Your task to perform on an android device: turn on javascript in the chrome app Image 0: 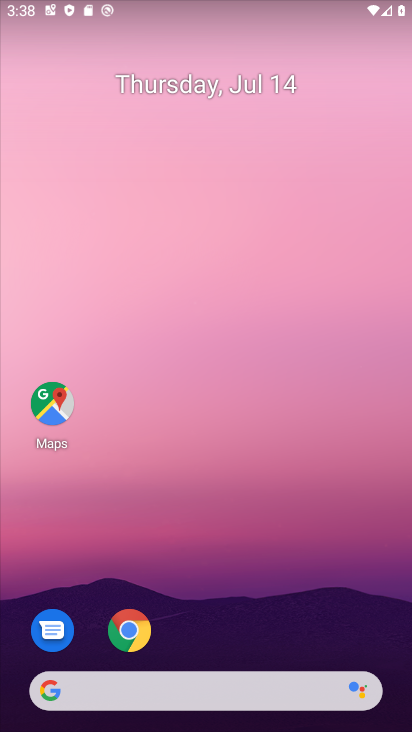
Step 0: click (132, 640)
Your task to perform on an android device: turn on javascript in the chrome app Image 1: 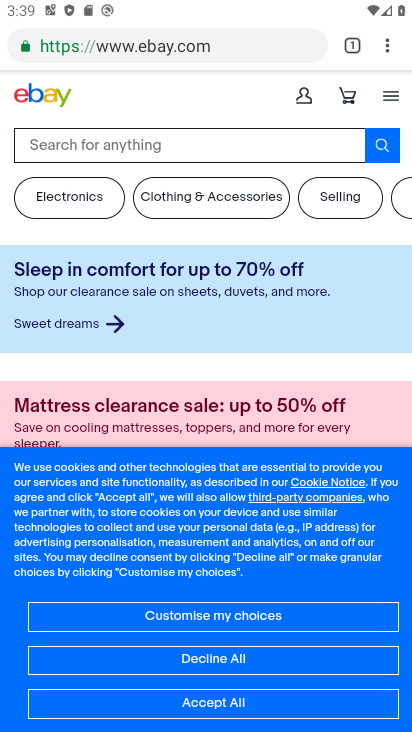
Step 1: click (389, 41)
Your task to perform on an android device: turn on javascript in the chrome app Image 2: 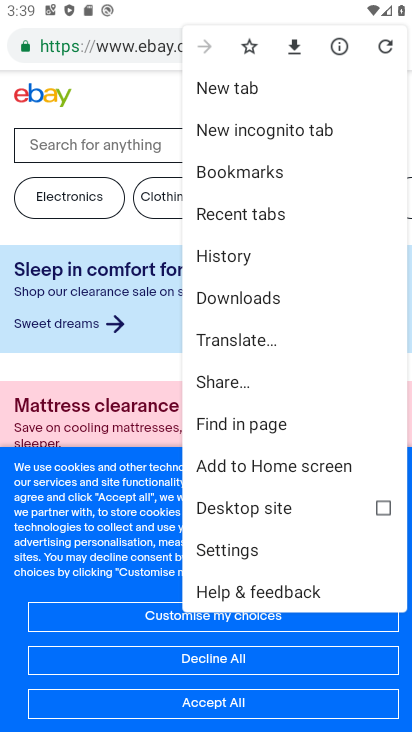
Step 2: click (271, 550)
Your task to perform on an android device: turn on javascript in the chrome app Image 3: 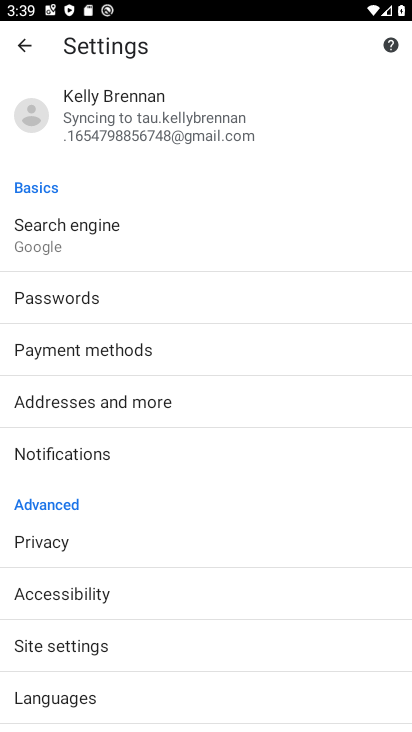
Step 3: click (126, 649)
Your task to perform on an android device: turn on javascript in the chrome app Image 4: 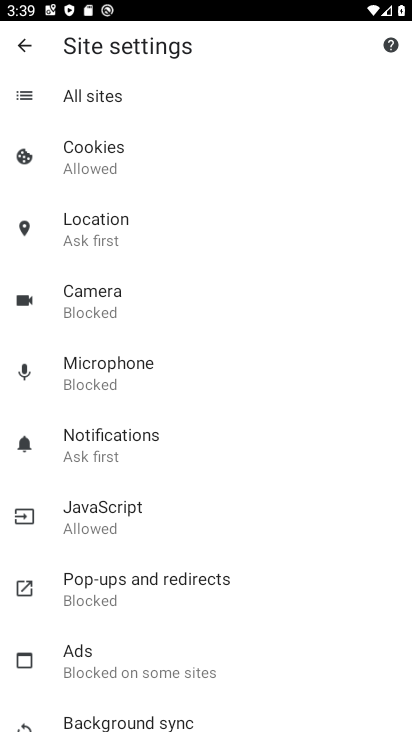
Step 4: click (100, 514)
Your task to perform on an android device: turn on javascript in the chrome app Image 5: 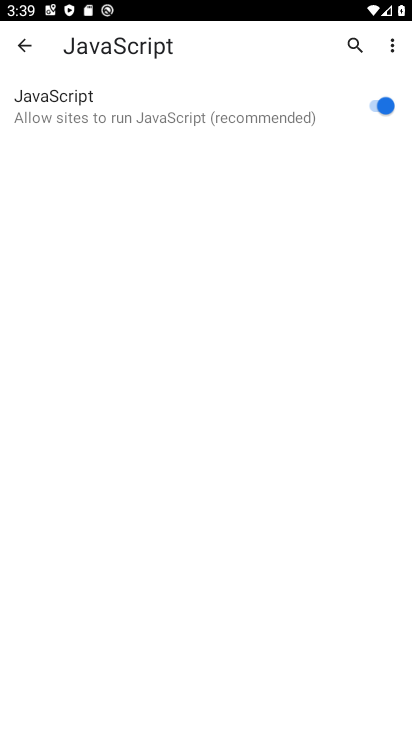
Step 5: task complete